Your task to perform on an android device: When is my next appointment? Image 0: 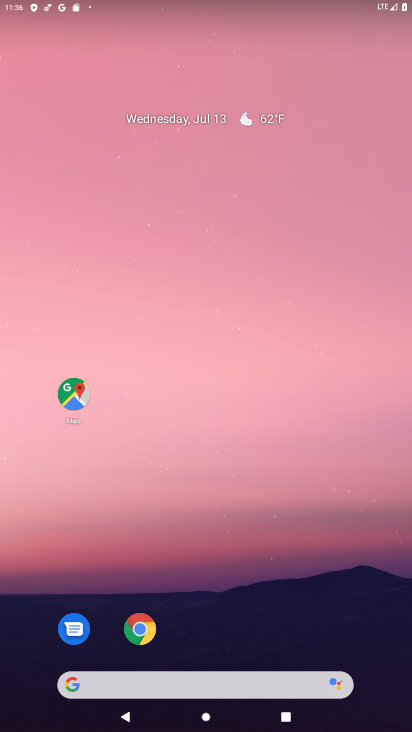
Step 0: click (163, 117)
Your task to perform on an android device: When is my next appointment? Image 1: 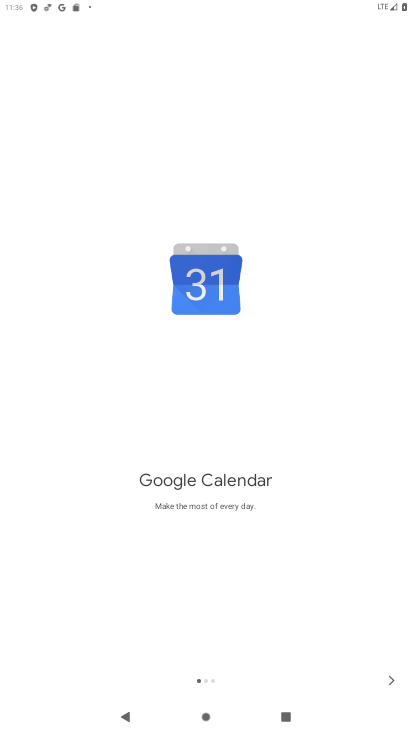
Step 1: click (385, 688)
Your task to perform on an android device: When is my next appointment? Image 2: 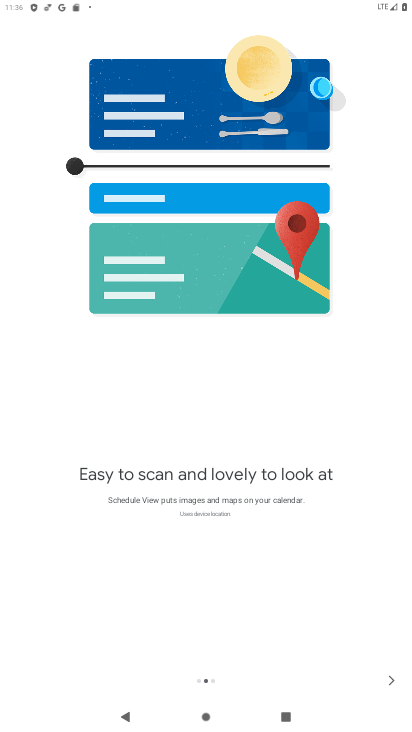
Step 2: click (385, 688)
Your task to perform on an android device: When is my next appointment? Image 3: 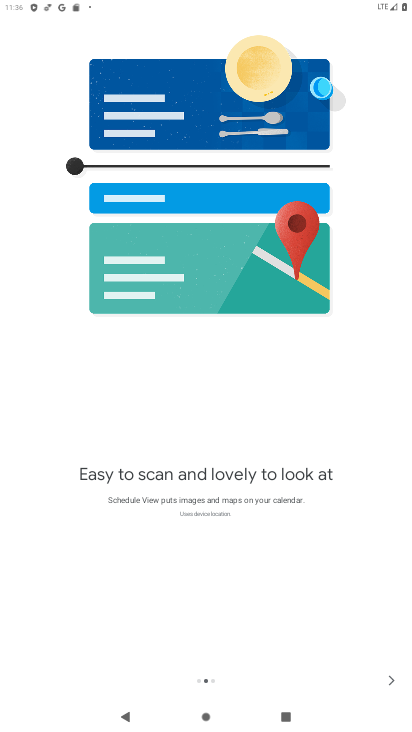
Step 3: click (385, 688)
Your task to perform on an android device: When is my next appointment? Image 4: 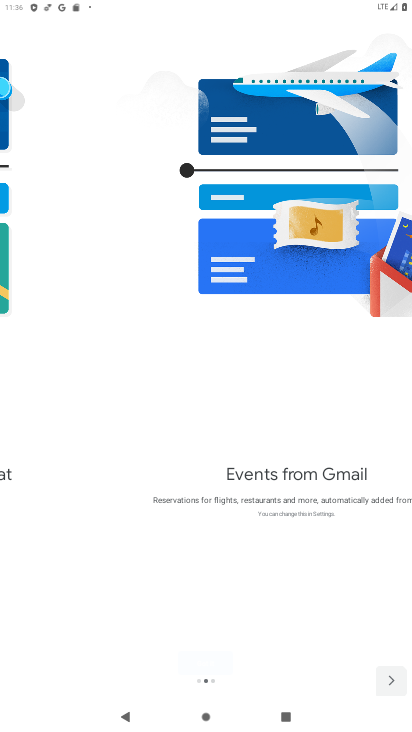
Step 4: click (385, 688)
Your task to perform on an android device: When is my next appointment? Image 5: 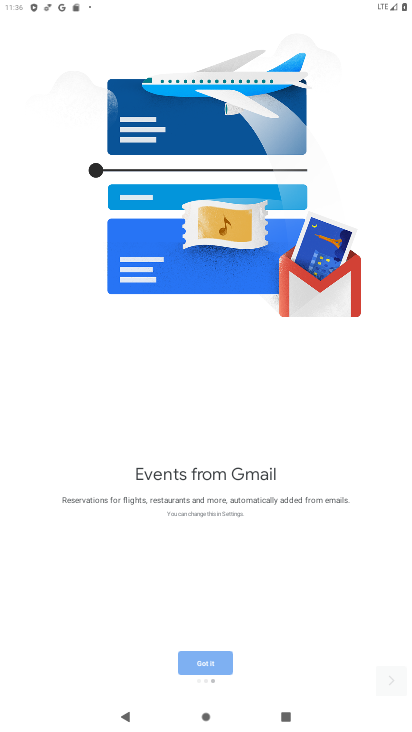
Step 5: click (385, 688)
Your task to perform on an android device: When is my next appointment? Image 6: 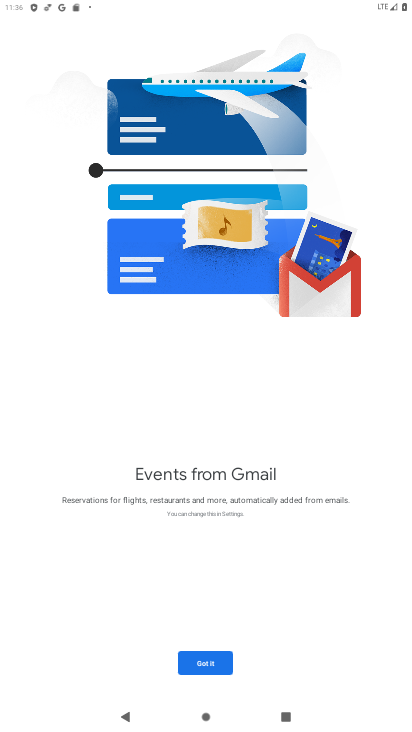
Step 6: click (385, 688)
Your task to perform on an android device: When is my next appointment? Image 7: 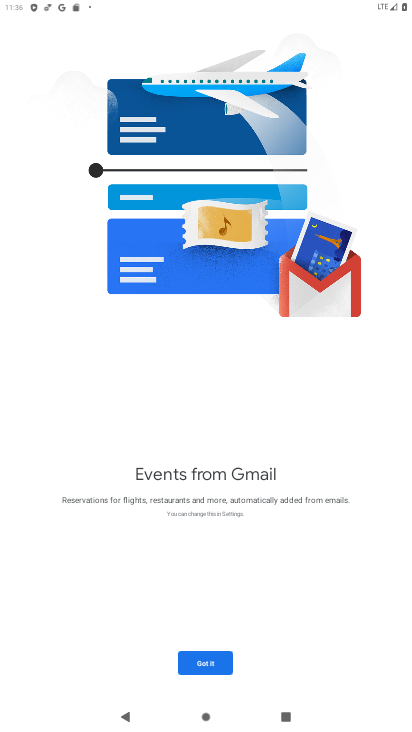
Step 7: click (385, 688)
Your task to perform on an android device: When is my next appointment? Image 8: 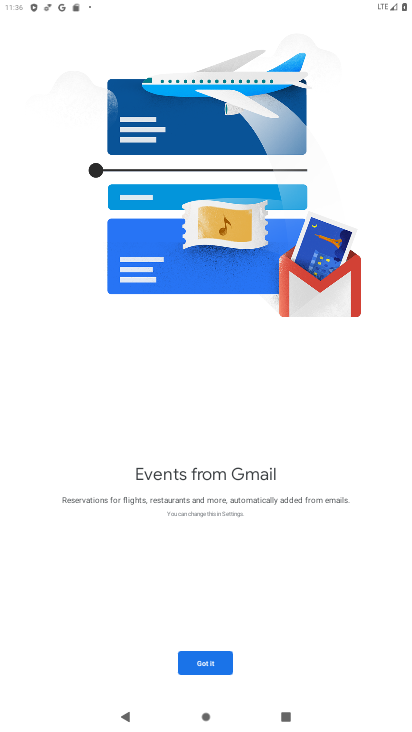
Step 8: click (211, 666)
Your task to perform on an android device: When is my next appointment? Image 9: 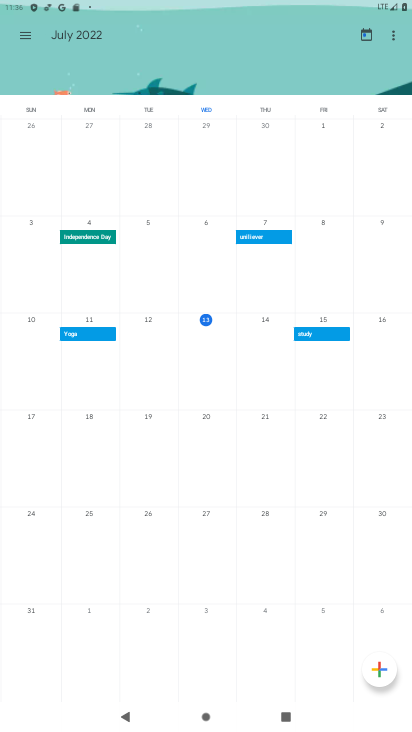
Step 9: click (78, 54)
Your task to perform on an android device: When is my next appointment? Image 10: 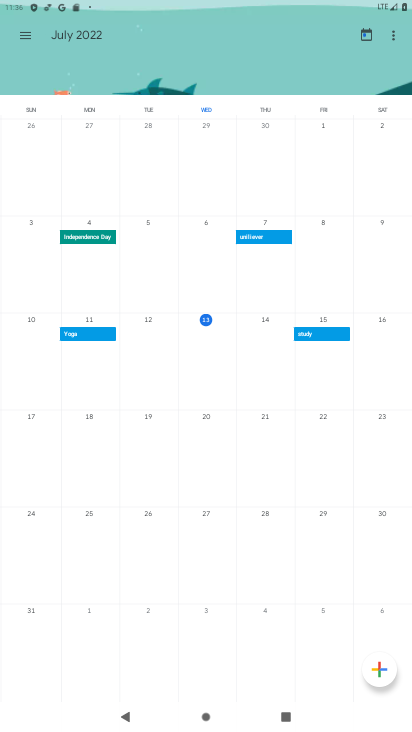
Step 10: click (73, 47)
Your task to perform on an android device: When is my next appointment? Image 11: 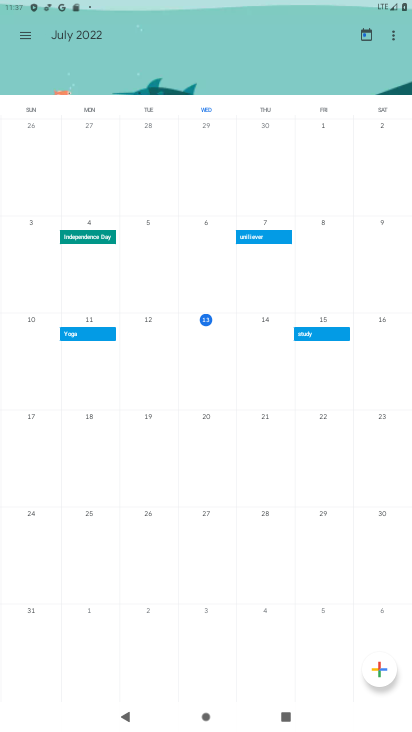
Step 11: task complete